Your task to perform on an android device: Show the shopping cart on bestbuy.com. Add usb-b to the cart on bestbuy.com Image 0: 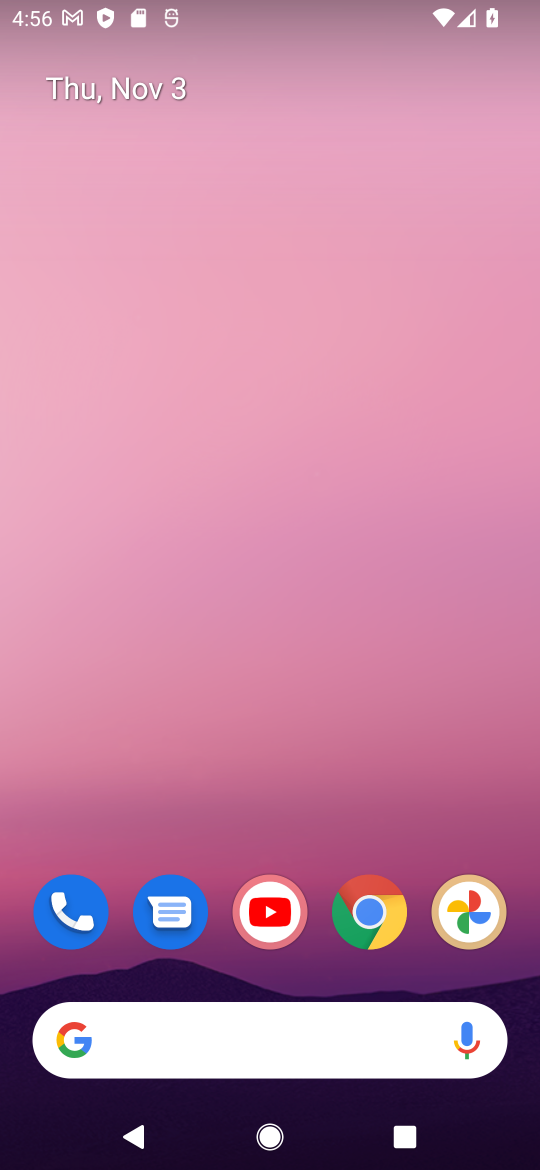
Step 0: click (359, 926)
Your task to perform on an android device: Show the shopping cart on bestbuy.com. Add usb-b to the cart on bestbuy.com Image 1: 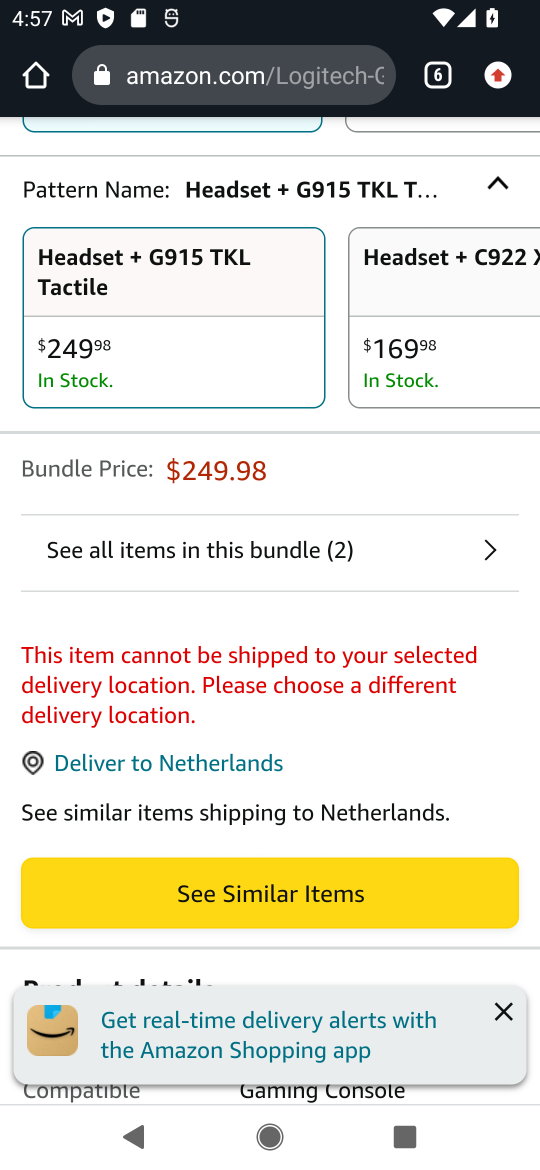
Step 1: drag from (292, 291) to (303, 1163)
Your task to perform on an android device: Show the shopping cart on bestbuy.com. Add usb-b to the cart on bestbuy.com Image 2: 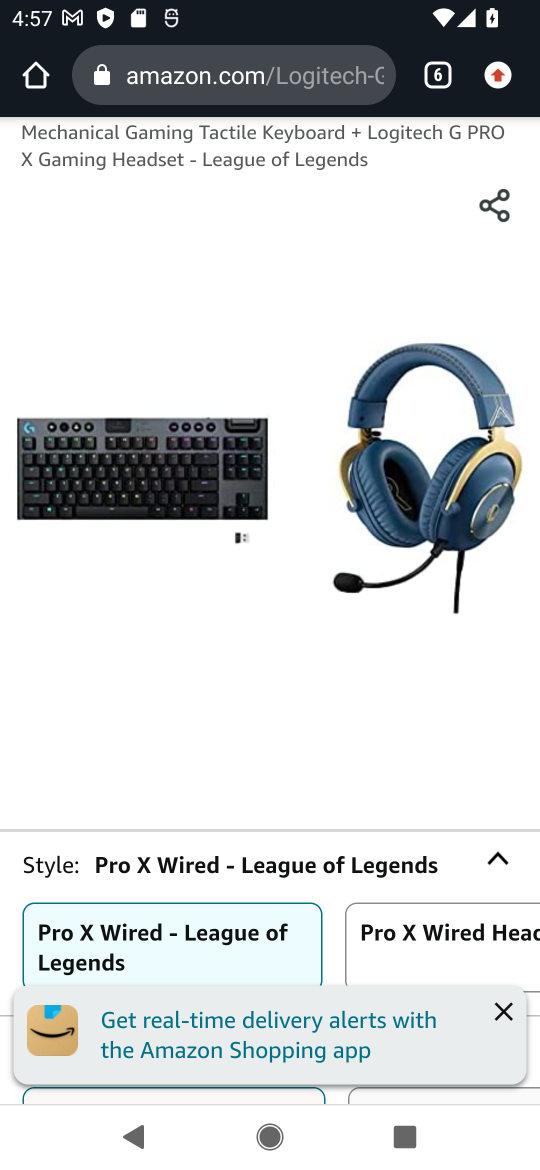
Step 2: drag from (263, 235) to (251, 1110)
Your task to perform on an android device: Show the shopping cart on bestbuy.com. Add usb-b to the cart on bestbuy.com Image 3: 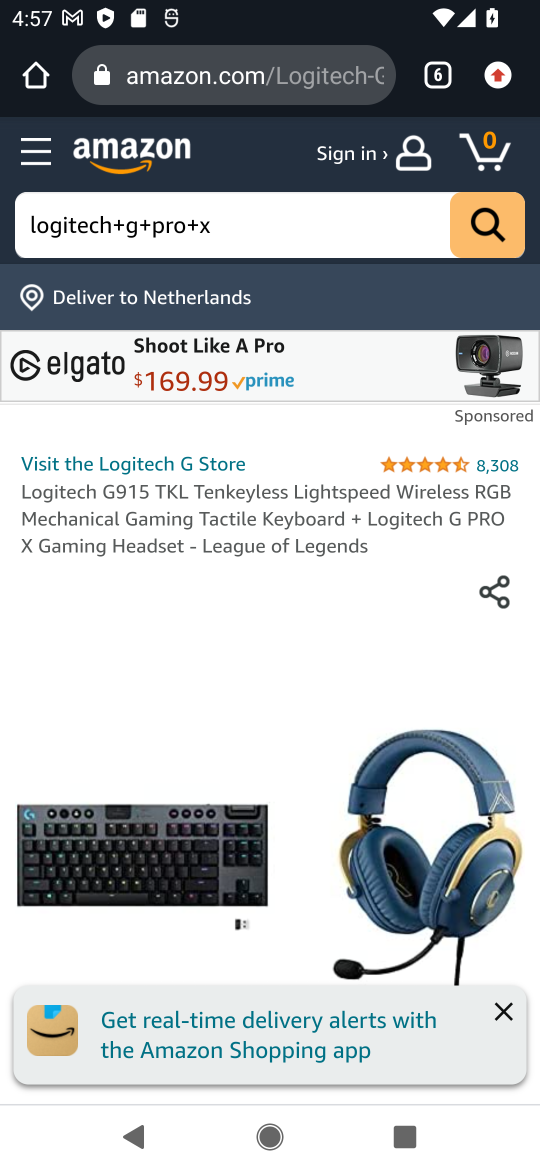
Step 3: click (445, 68)
Your task to perform on an android device: Show the shopping cart on bestbuy.com. Add usb-b to the cart on bestbuy.com Image 4: 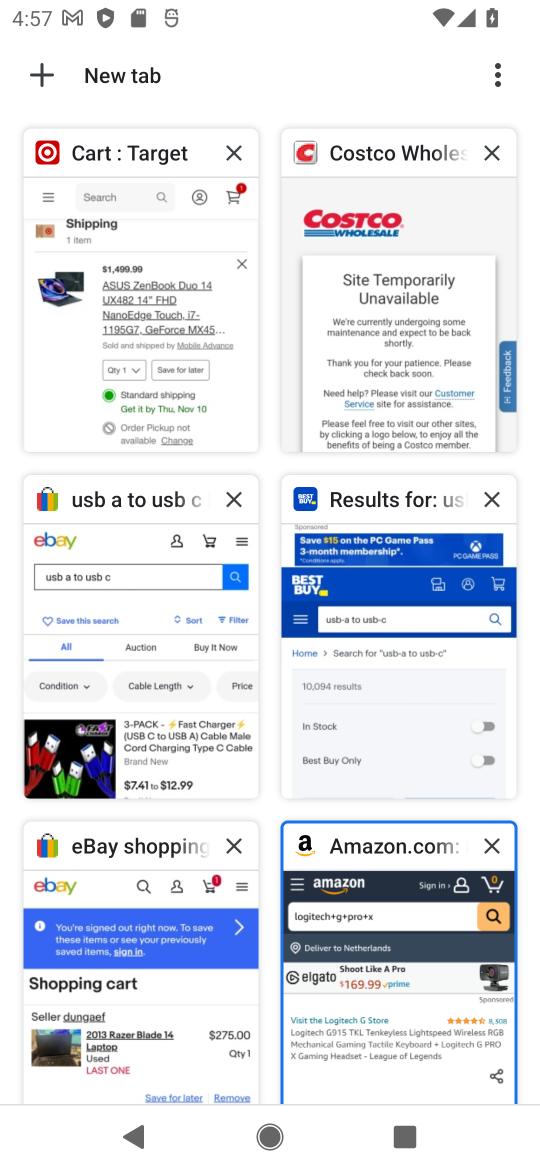
Step 4: click (37, 60)
Your task to perform on an android device: Show the shopping cart on bestbuy.com. Add usb-b to the cart on bestbuy.com Image 5: 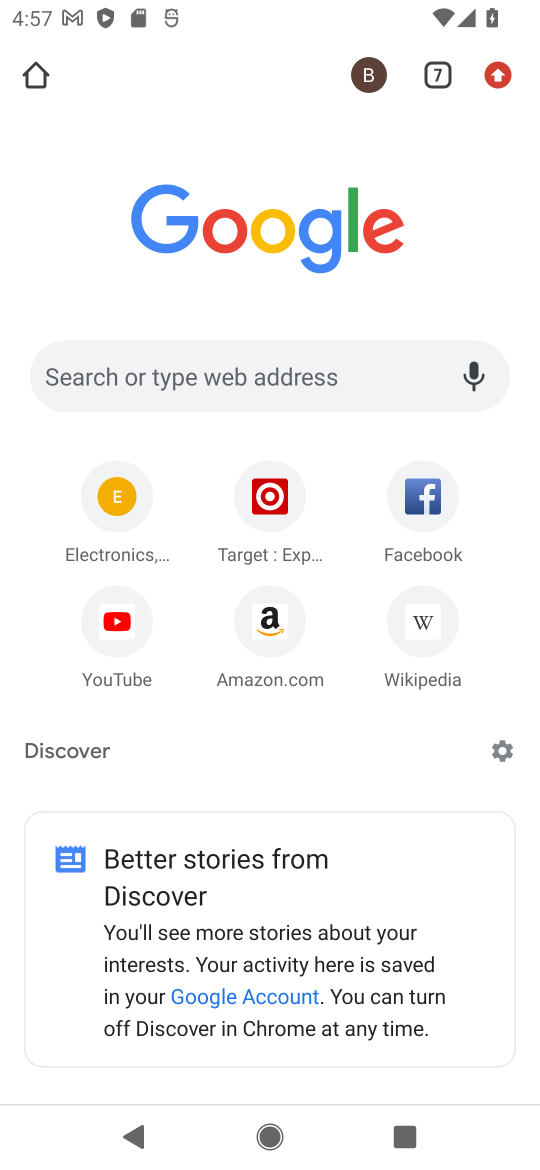
Step 5: click (222, 377)
Your task to perform on an android device: Show the shopping cart on bestbuy.com. Add usb-b to the cart on bestbuy.com Image 6: 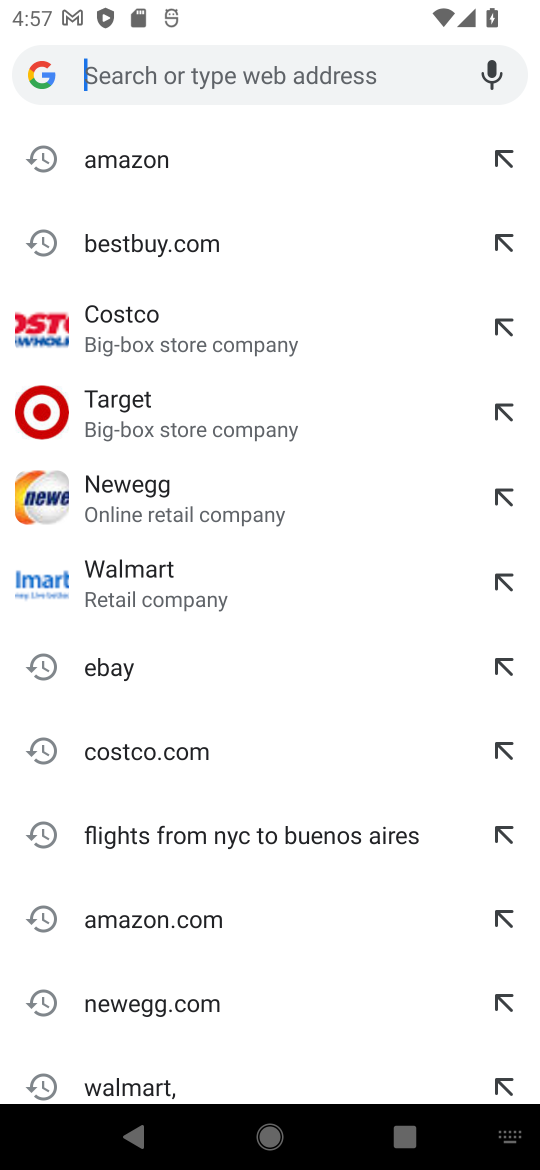
Step 6: click (128, 247)
Your task to perform on an android device: Show the shopping cart on bestbuy.com. Add usb-b to the cart on bestbuy.com Image 7: 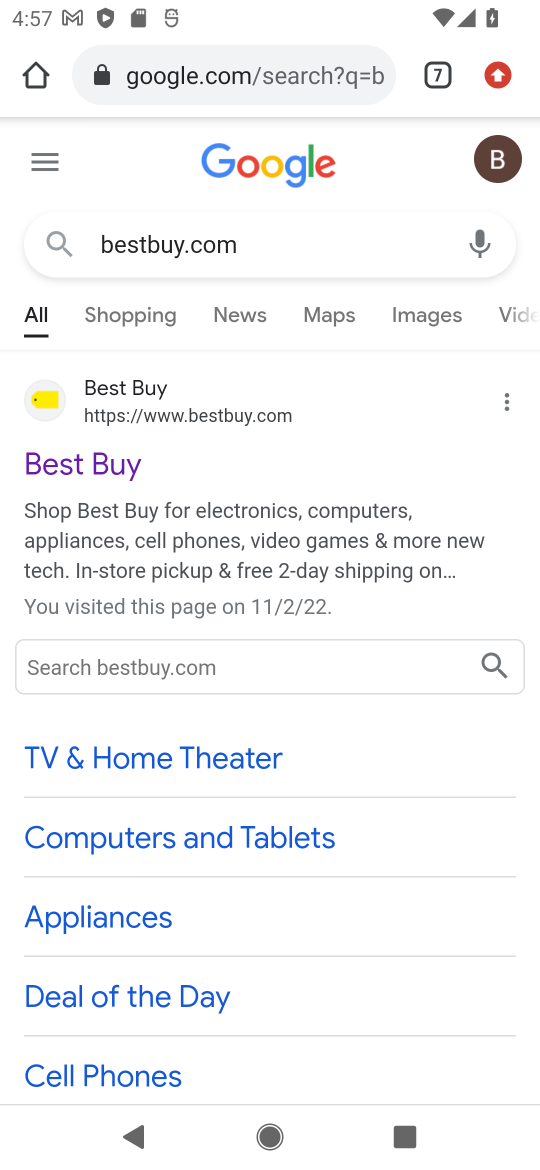
Step 7: click (91, 466)
Your task to perform on an android device: Show the shopping cart on bestbuy.com. Add usb-b to the cart on bestbuy.com Image 8: 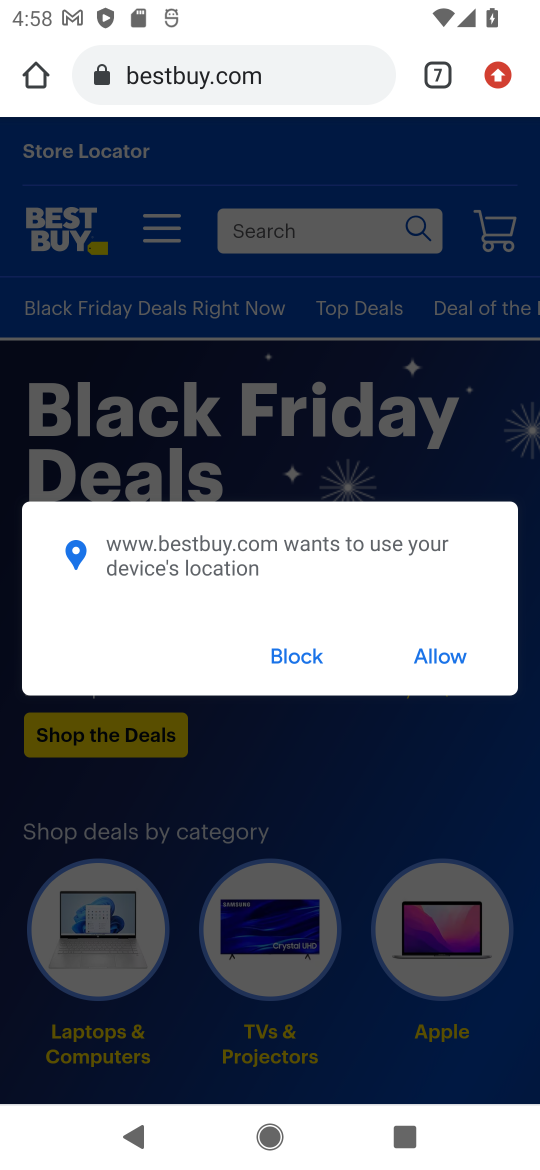
Step 8: click (320, 651)
Your task to perform on an android device: Show the shopping cart on bestbuy.com. Add usb-b to the cart on bestbuy.com Image 9: 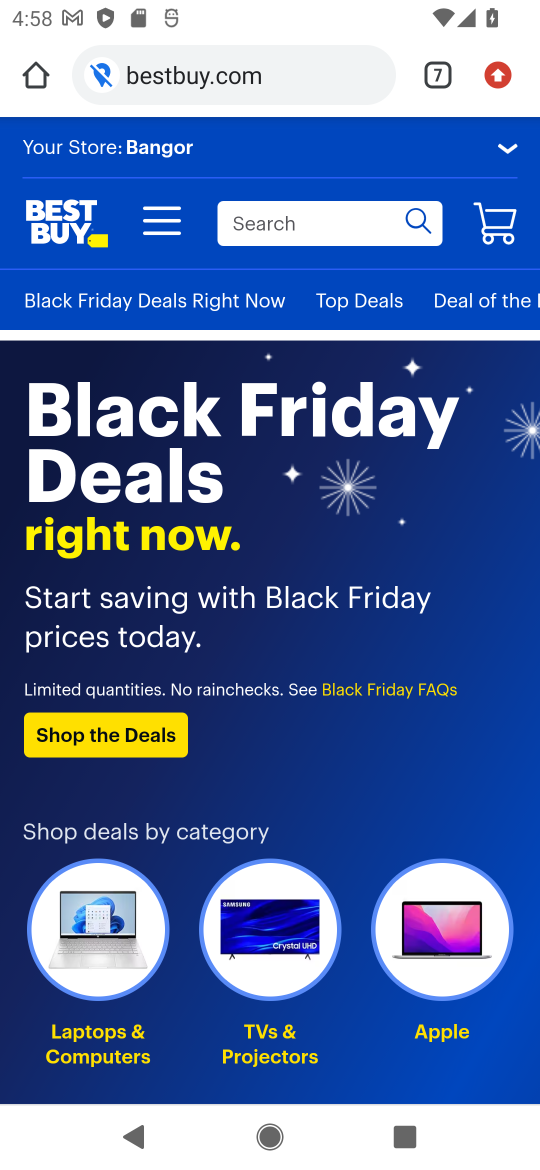
Step 9: drag from (291, 1055) to (331, 718)
Your task to perform on an android device: Show the shopping cart on bestbuy.com. Add usb-b to the cart on bestbuy.com Image 10: 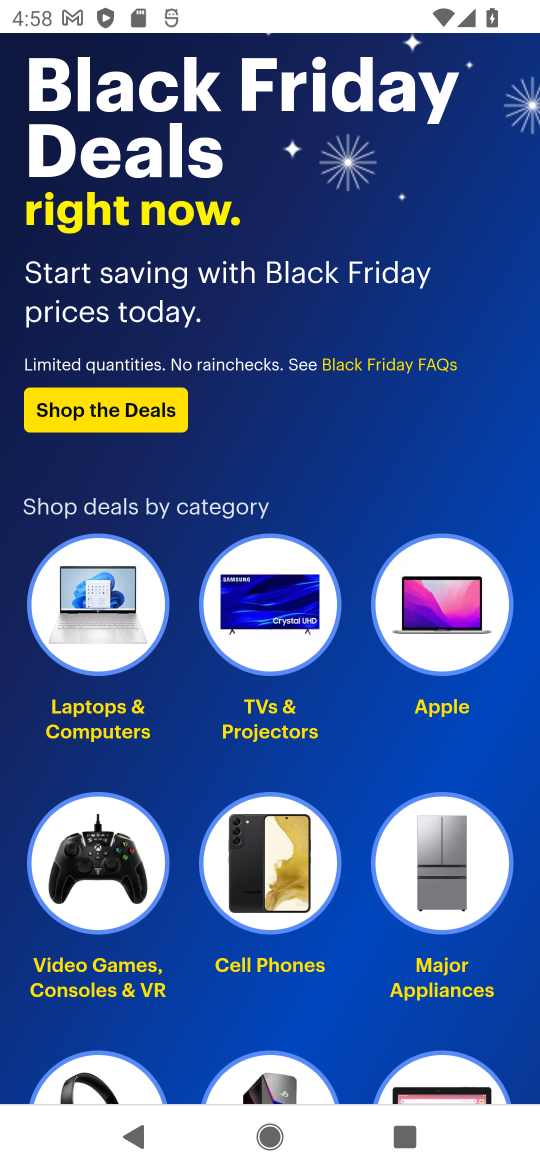
Step 10: drag from (423, 250) to (343, 1155)
Your task to perform on an android device: Show the shopping cart on bestbuy.com. Add usb-b to the cart on bestbuy.com Image 11: 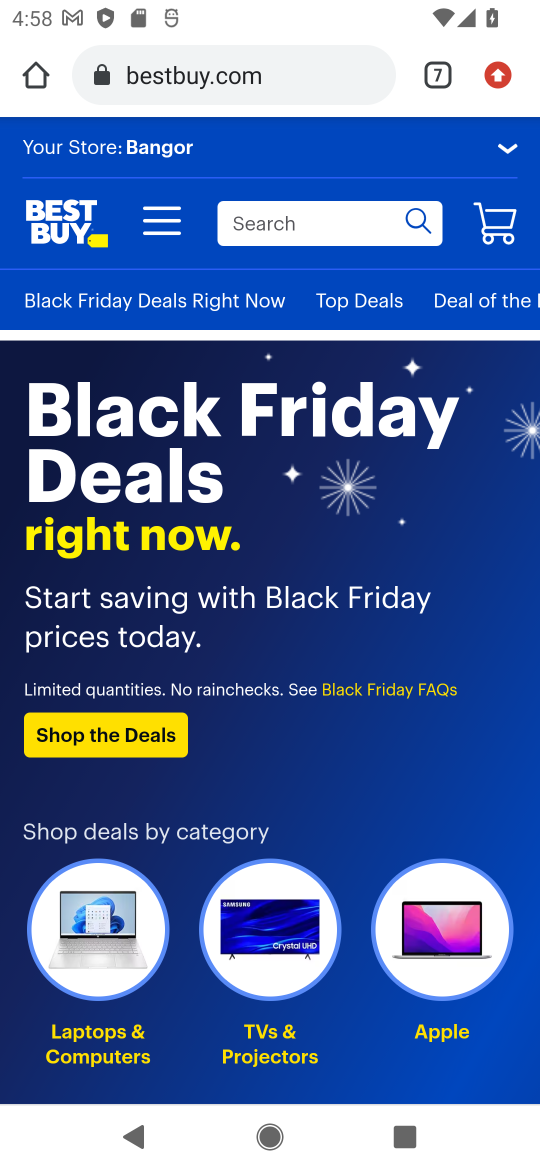
Step 11: click (270, 224)
Your task to perform on an android device: Show the shopping cart on bestbuy.com. Add usb-b to the cart on bestbuy.com Image 12: 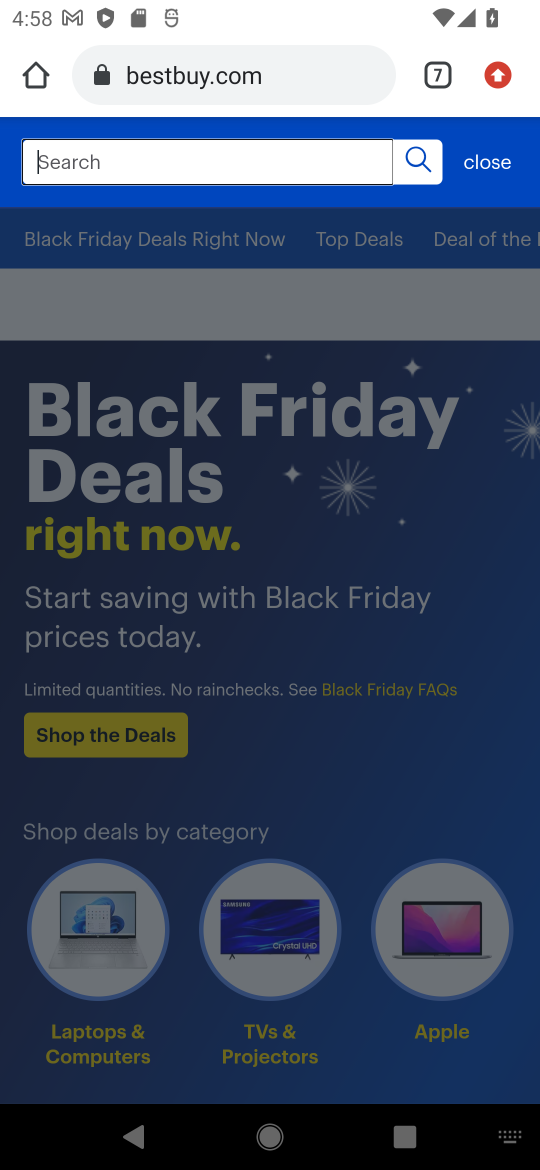
Step 12: click (185, 165)
Your task to perform on an android device: Show the shopping cart on bestbuy.com. Add usb-b to the cart on bestbuy.com Image 13: 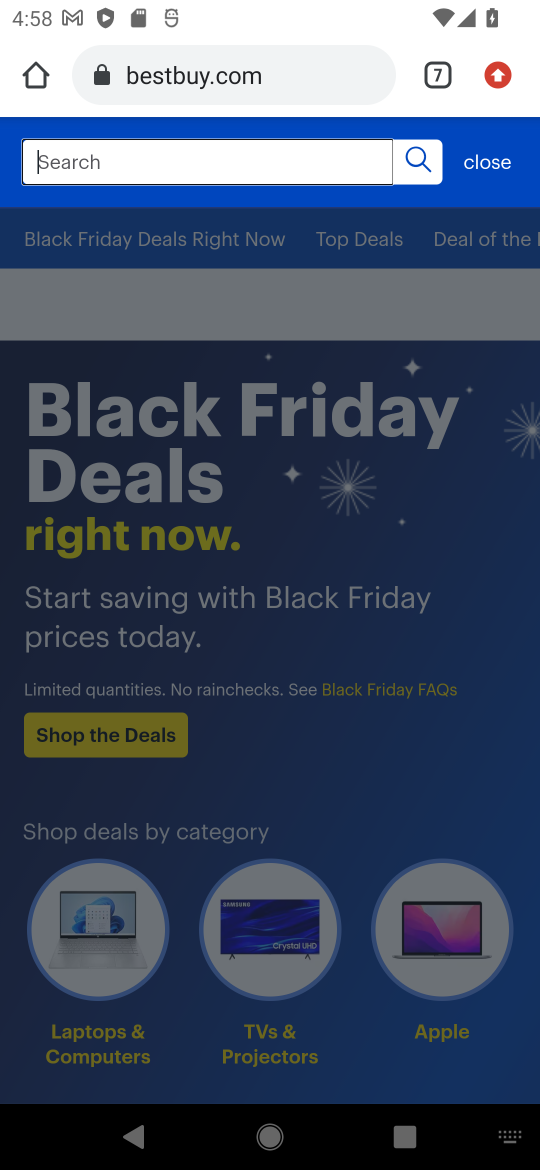
Step 13: type "usb-b "
Your task to perform on an android device: Show the shopping cart on bestbuy.com. Add usb-b to the cart on bestbuy.com Image 14: 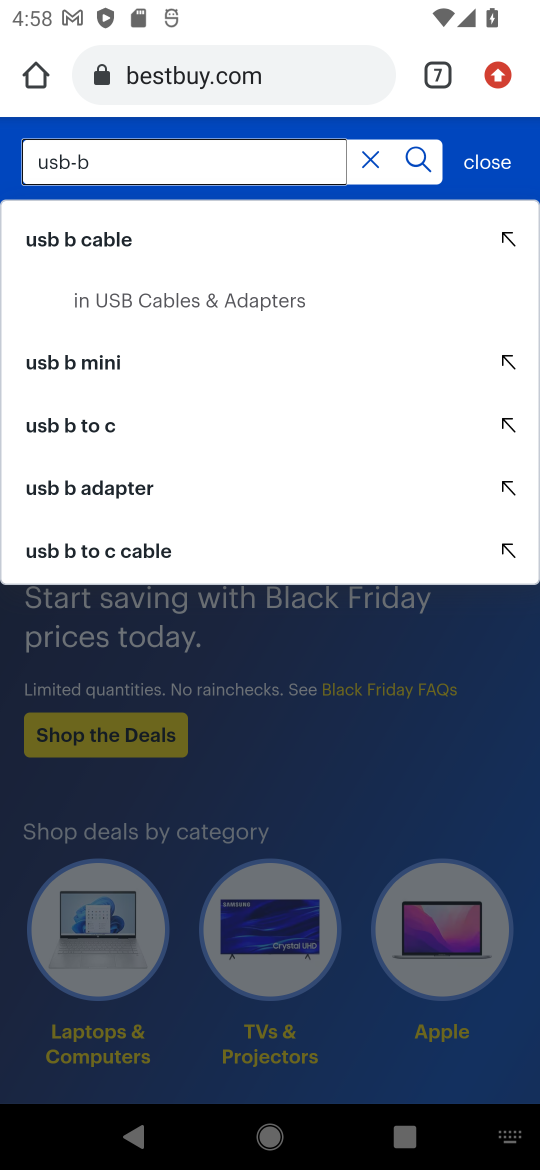
Step 14: click (36, 235)
Your task to perform on an android device: Show the shopping cart on bestbuy.com. Add usb-b to the cart on bestbuy.com Image 15: 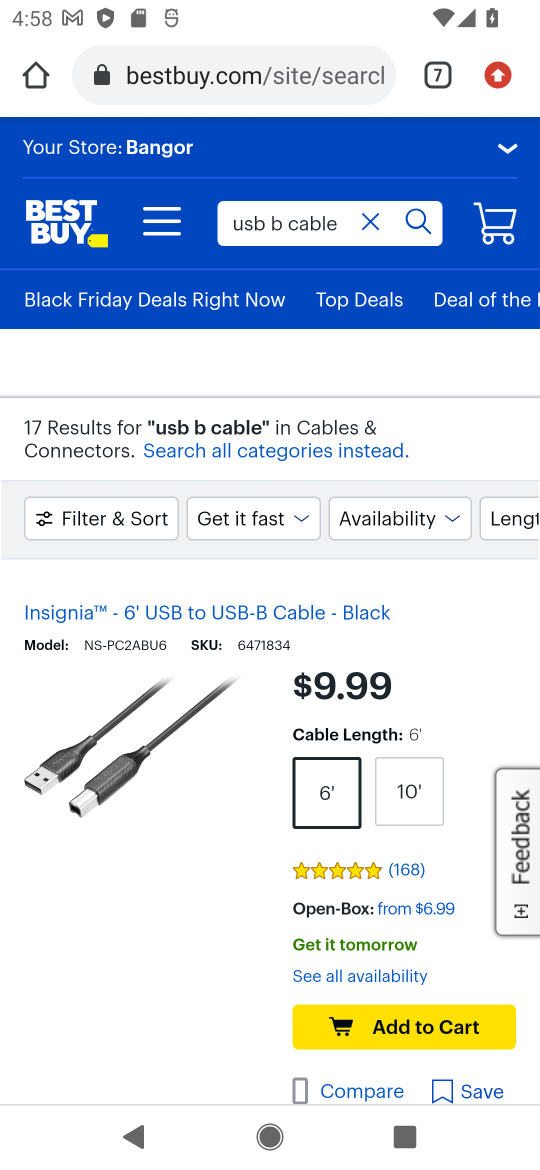
Step 15: click (365, 1026)
Your task to perform on an android device: Show the shopping cart on bestbuy.com. Add usb-b to the cart on bestbuy.com Image 16: 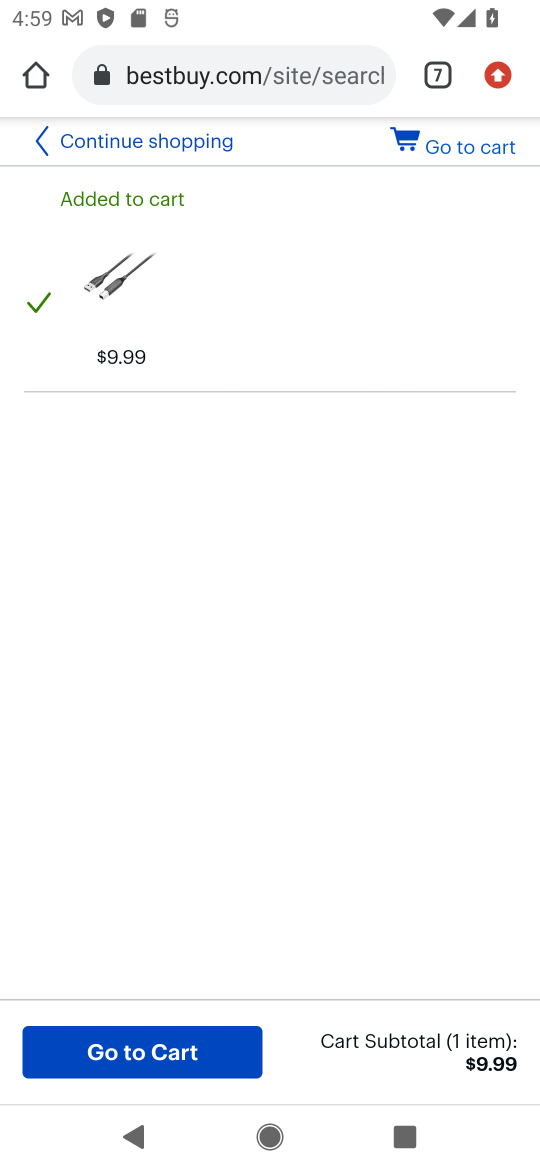
Step 16: task complete